Your task to perform on an android device: allow cookies in the chrome app Image 0: 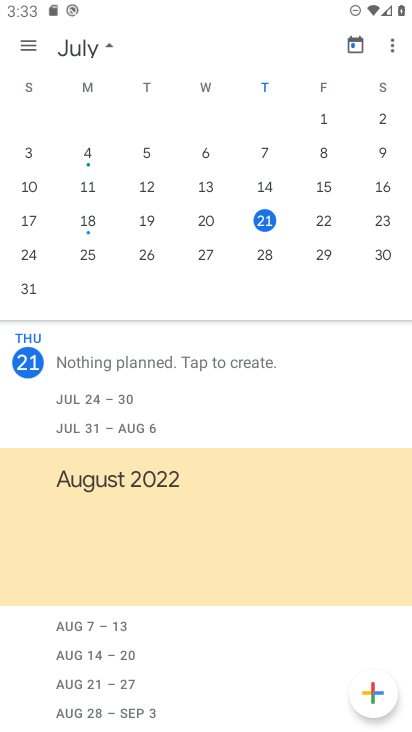
Step 0: press back button
Your task to perform on an android device: allow cookies in the chrome app Image 1: 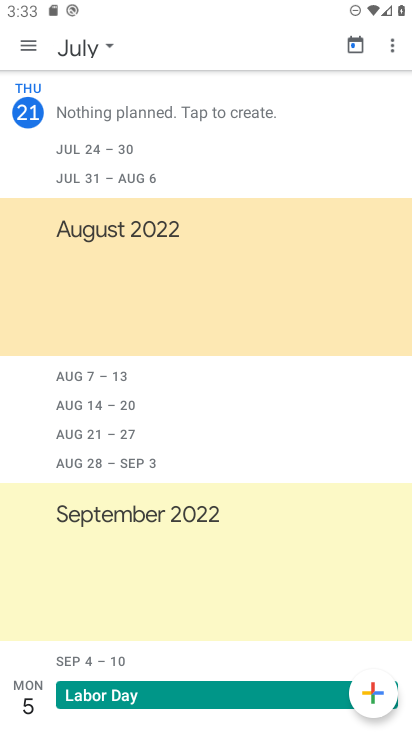
Step 1: press back button
Your task to perform on an android device: allow cookies in the chrome app Image 2: 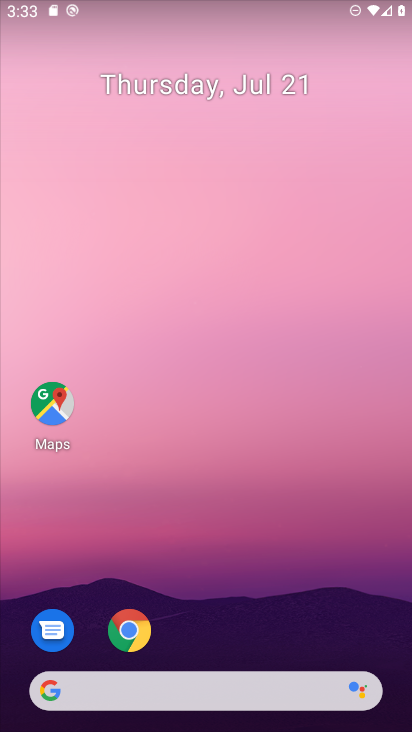
Step 2: click (141, 626)
Your task to perform on an android device: allow cookies in the chrome app Image 3: 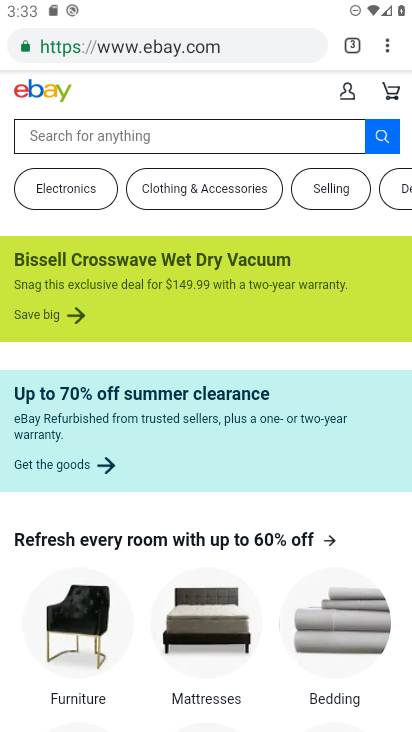
Step 3: drag from (381, 43) to (229, 550)
Your task to perform on an android device: allow cookies in the chrome app Image 4: 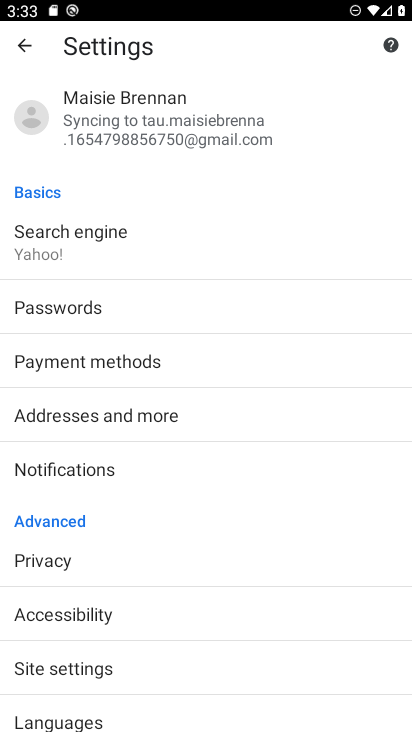
Step 4: click (92, 663)
Your task to perform on an android device: allow cookies in the chrome app Image 5: 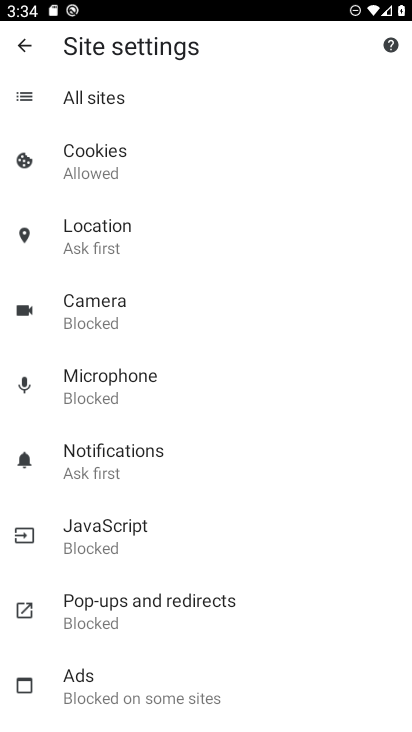
Step 5: click (72, 152)
Your task to perform on an android device: allow cookies in the chrome app Image 6: 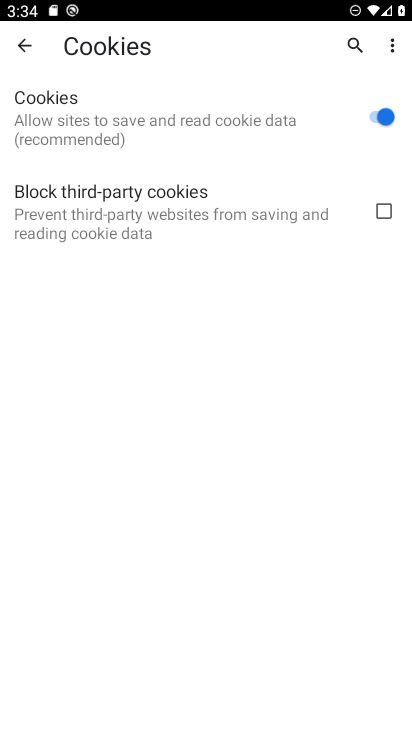
Step 6: task complete